Your task to perform on an android device: Go to CNN.com Image 0: 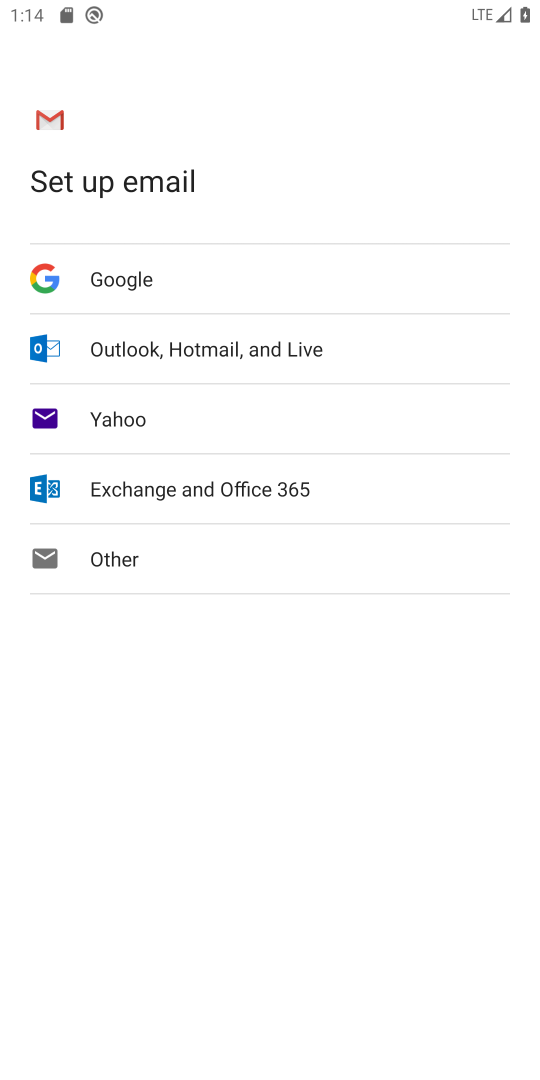
Step 0: press home button
Your task to perform on an android device: Go to CNN.com Image 1: 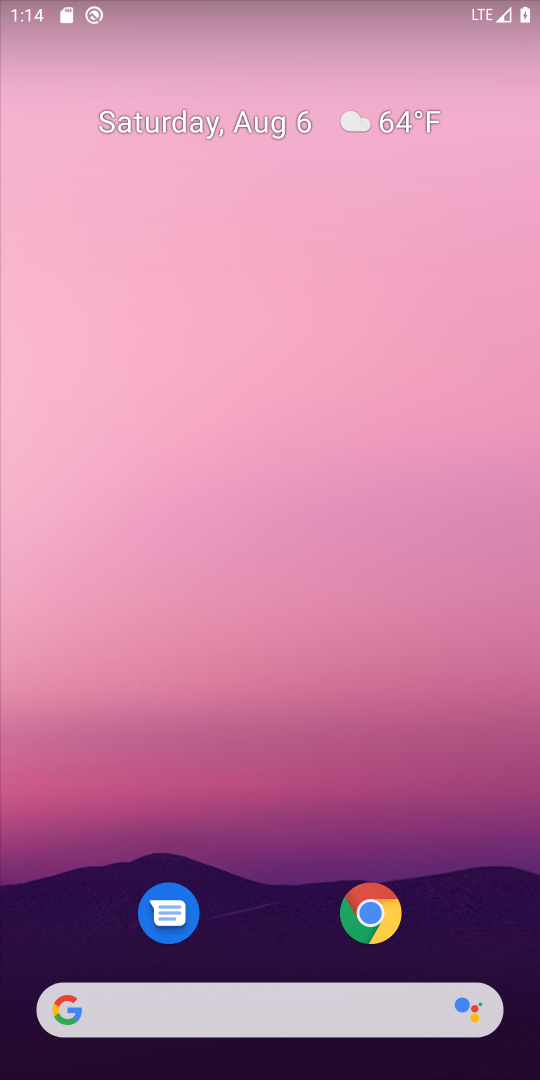
Step 1: drag from (482, 766) to (492, 168)
Your task to perform on an android device: Go to CNN.com Image 2: 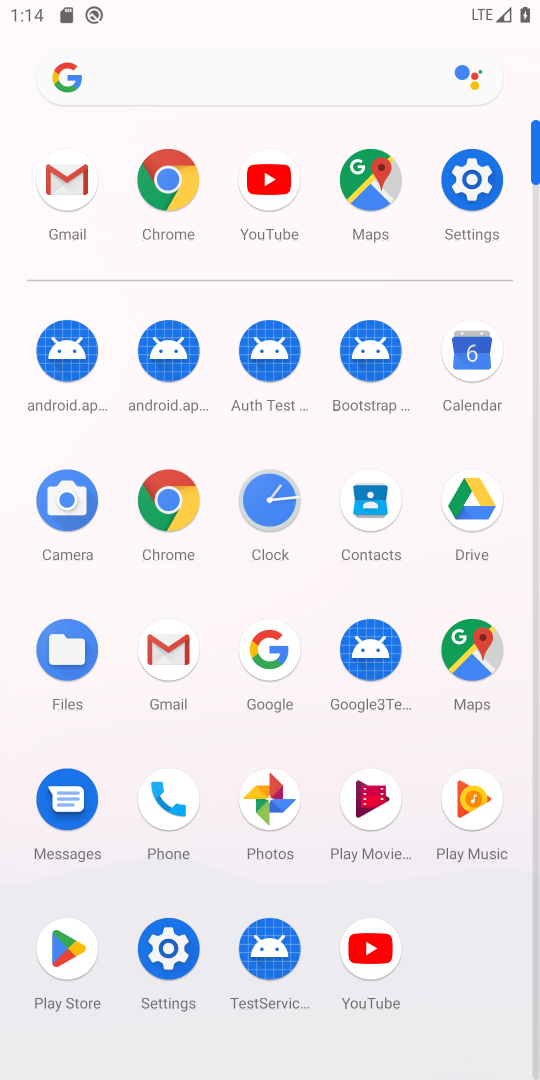
Step 2: click (159, 506)
Your task to perform on an android device: Go to CNN.com Image 3: 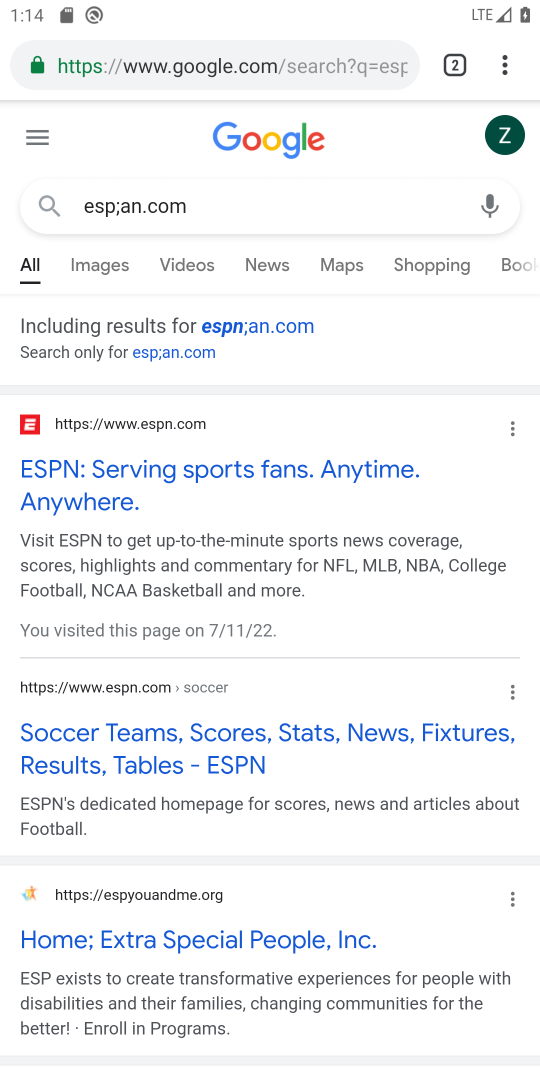
Step 3: click (323, 64)
Your task to perform on an android device: Go to CNN.com Image 4: 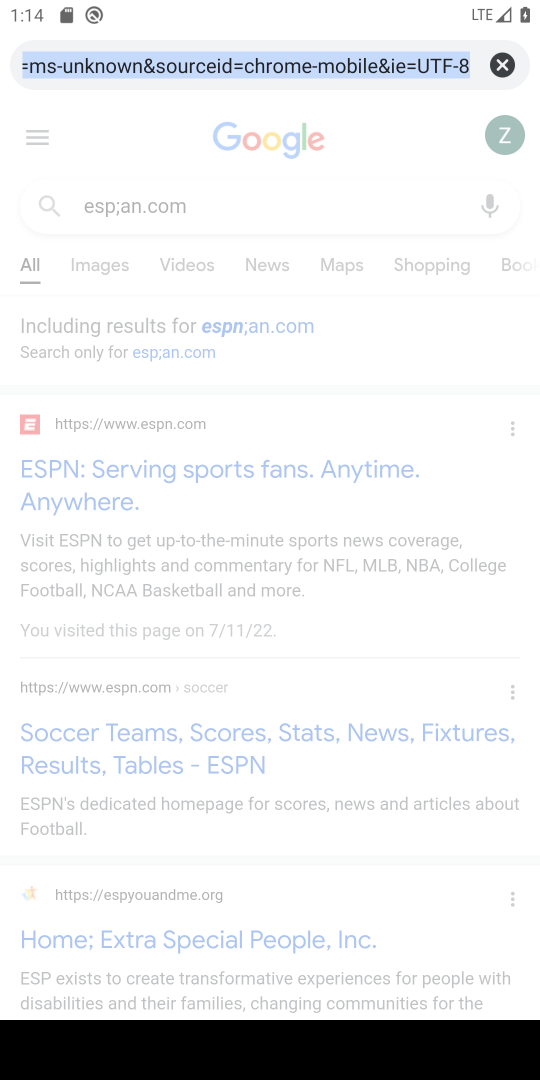
Step 4: type "cnn.com"
Your task to perform on an android device: Go to CNN.com Image 5: 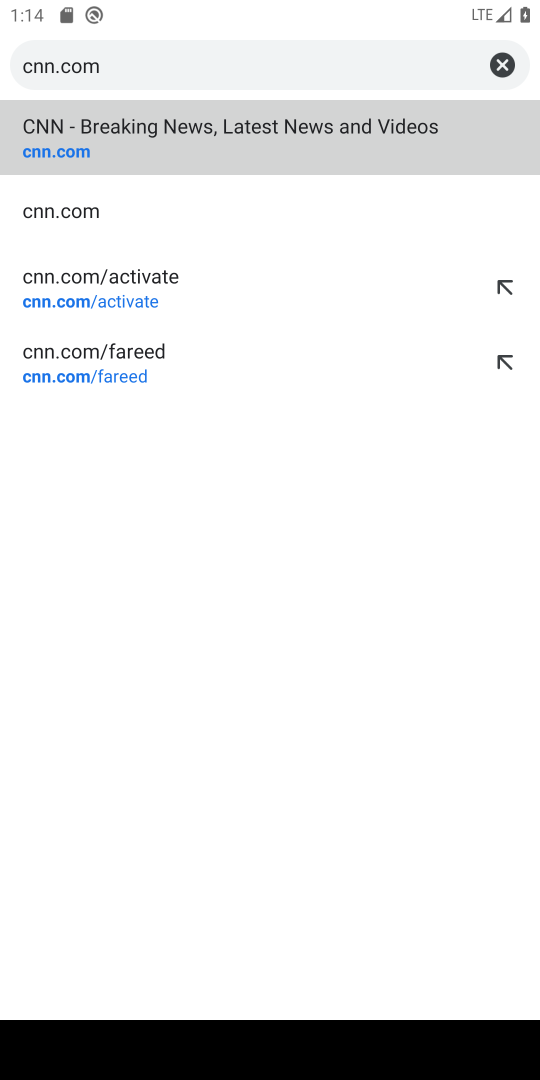
Step 5: click (291, 141)
Your task to perform on an android device: Go to CNN.com Image 6: 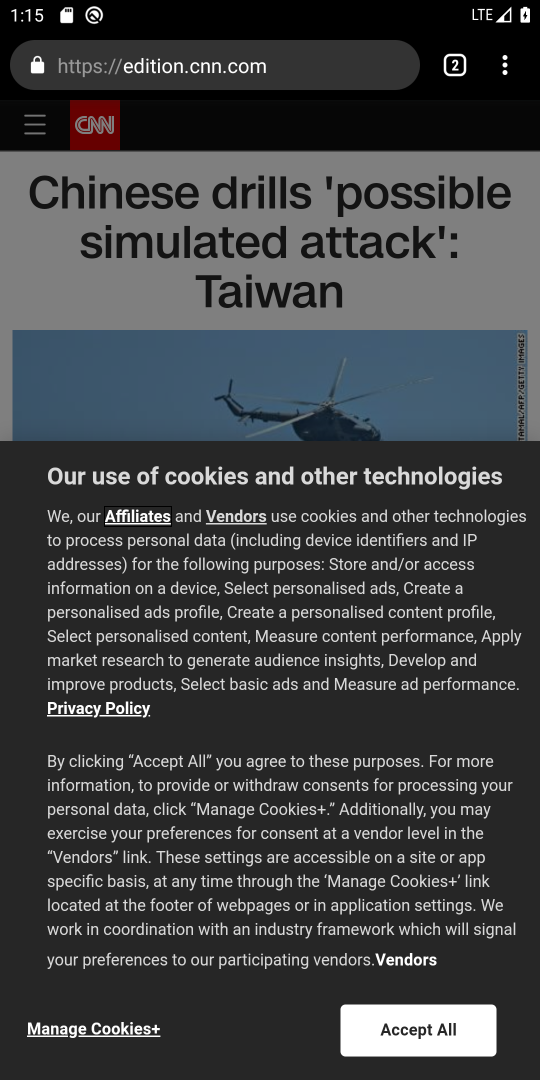
Step 6: task complete